Your task to perform on an android device: Go to Android settings Image 0: 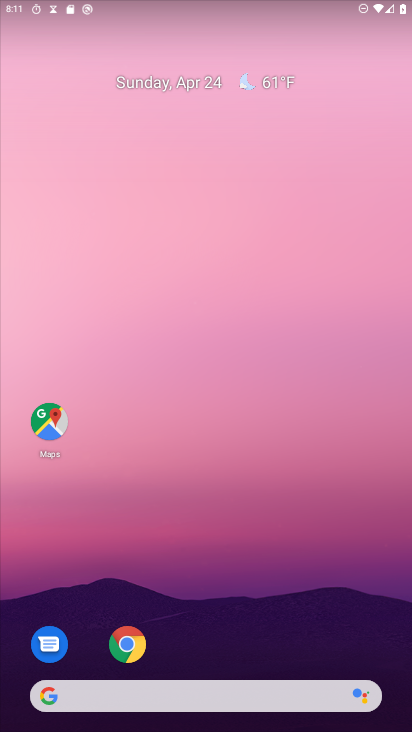
Step 0: drag from (230, 696) to (237, 167)
Your task to perform on an android device: Go to Android settings Image 1: 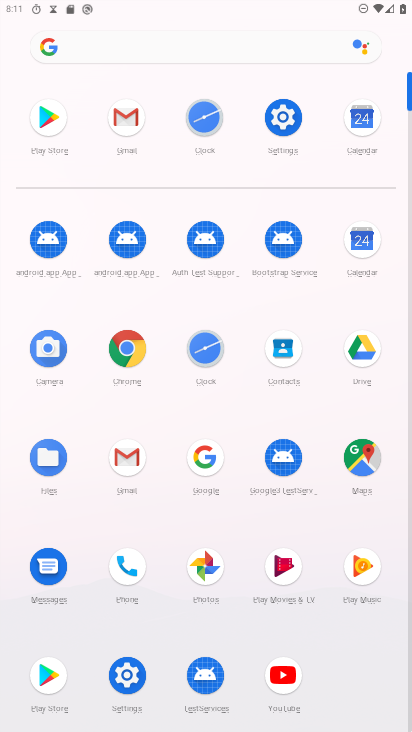
Step 1: click (277, 129)
Your task to perform on an android device: Go to Android settings Image 2: 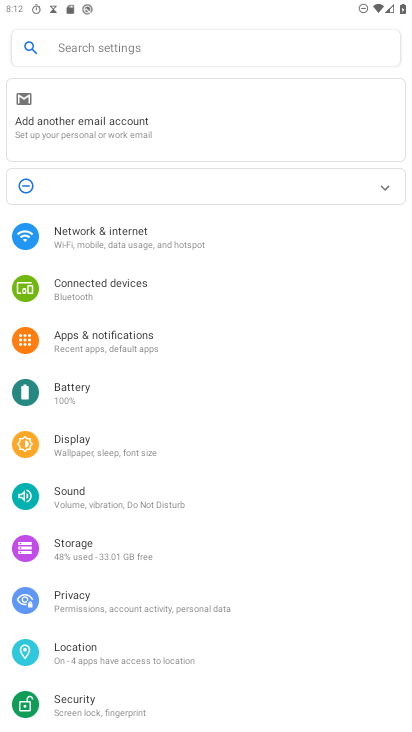
Step 2: drag from (185, 685) to (204, 93)
Your task to perform on an android device: Go to Android settings Image 3: 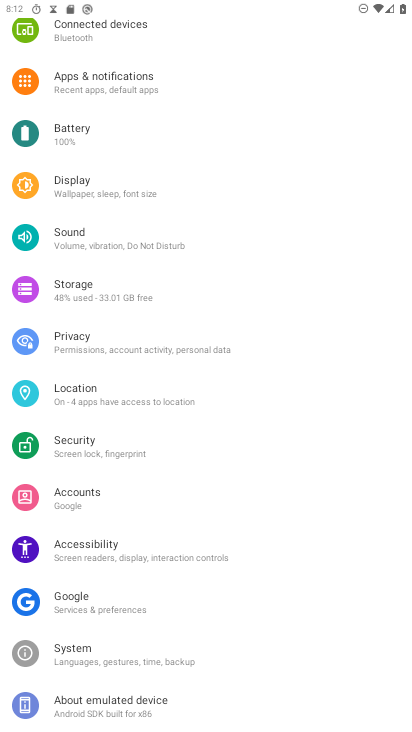
Step 3: click (157, 702)
Your task to perform on an android device: Go to Android settings Image 4: 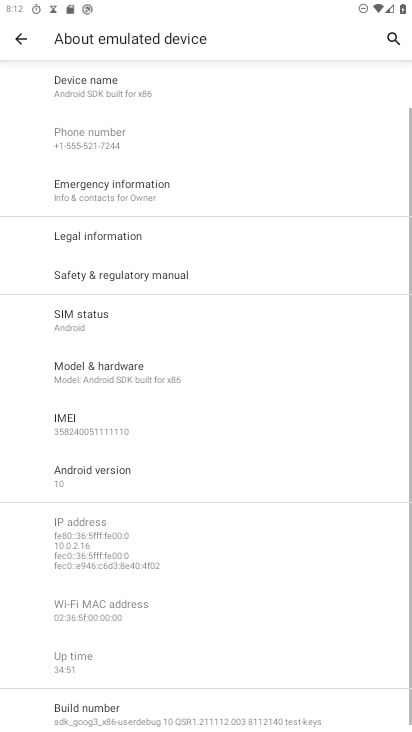
Step 4: task complete